Your task to perform on an android device: Open Youtube and go to "Your channel" Image 0: 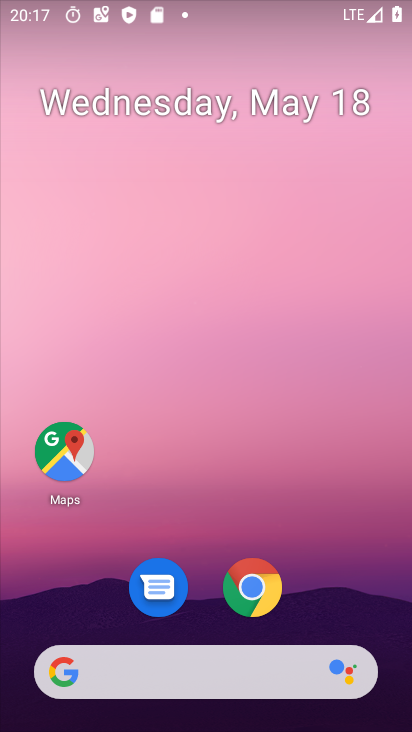
Step 0: drag from (218, 623) to (233, 157)
Your task to perform on an android device: Open Youtube and go to "Your channel" Image 1: 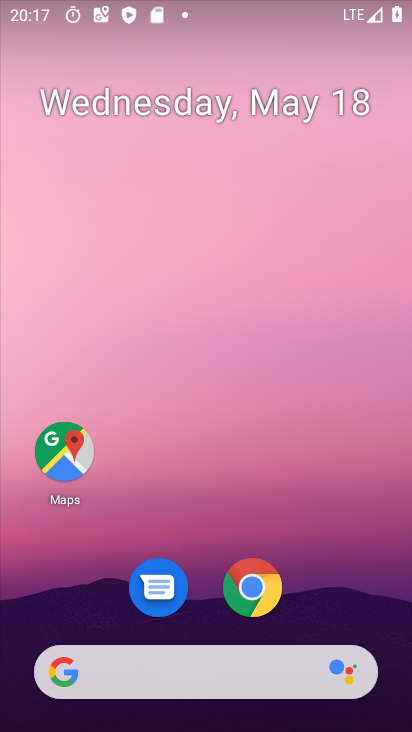
Step 1: drag from (205, 525) to (230, 97)
Your task to perform on an android device: Open Youtube and go to "Your channel" Image 2: 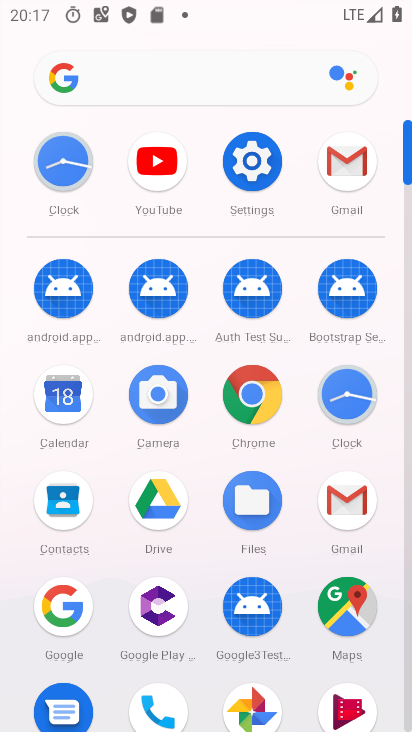
Step 2: click (155, 178)
Your task to perform on an android device: Open Youtube and go to "Your channel" Image 3: 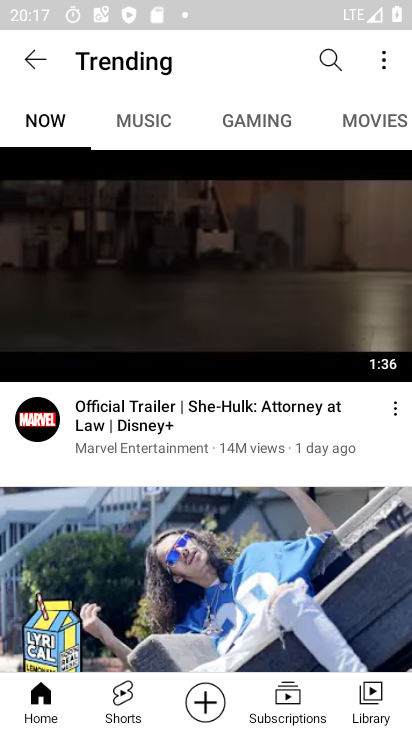
Step 3: click (337, 52)
Your task to perform on an android device: Open Youtube and go to "Your channel" Image 4: 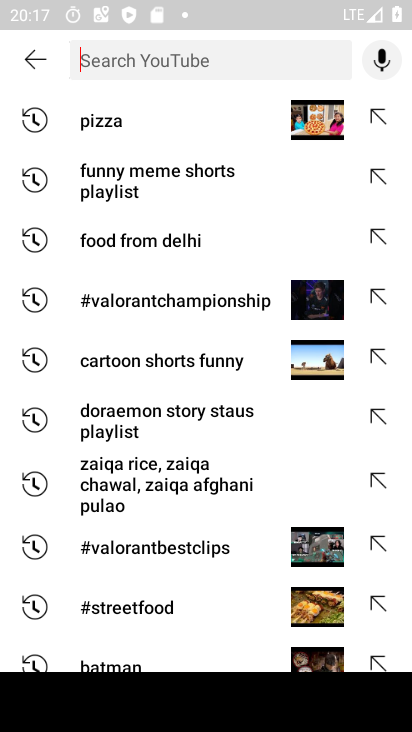
Step 4: type "your channel"
Your task to perform on an android device: Open Youtube and go to "Your channel" Image 5: 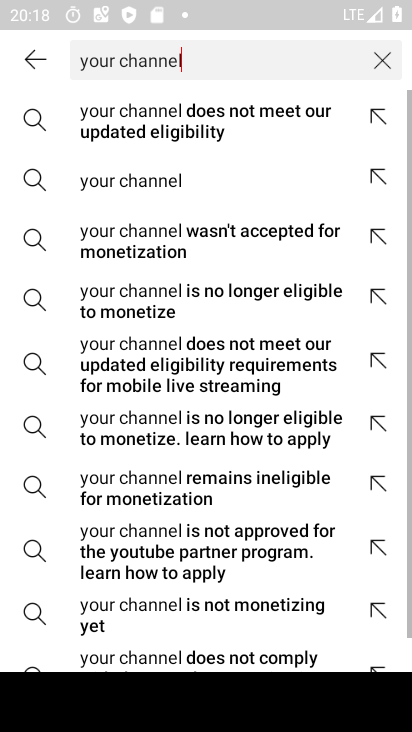
Step 5: type ""
Your task to perform on an android device: Open Youtube and go to "Your channel" Image 6: 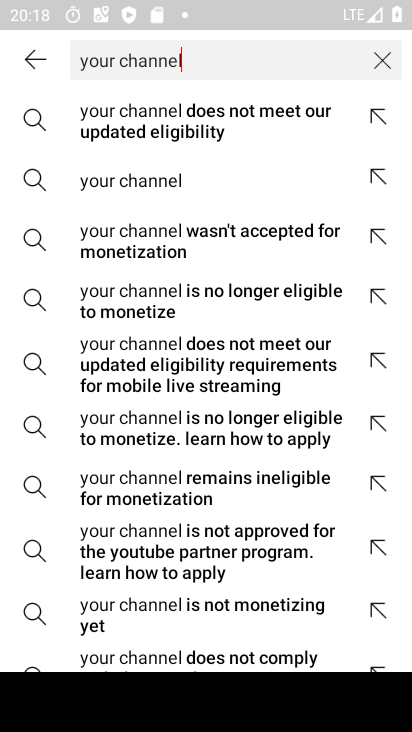
Step 6: click (114, 180)
Your task to perform on an android device: Open Youtube and go to "Your channel" Image 7: 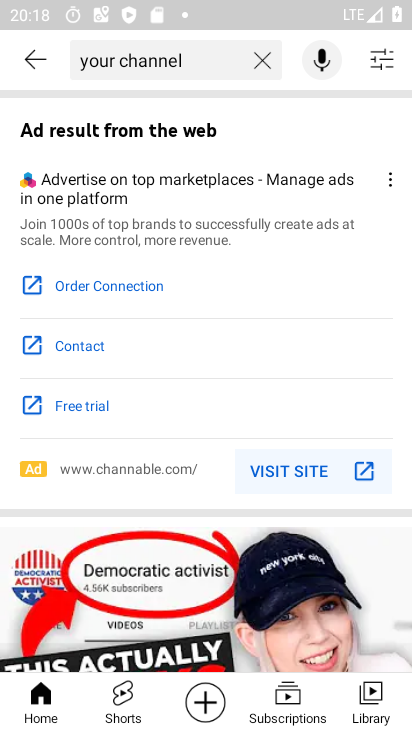
Step 7: task complete